Your task to perform on an android device: Search for Mexican restaurants on Maps Image 0: 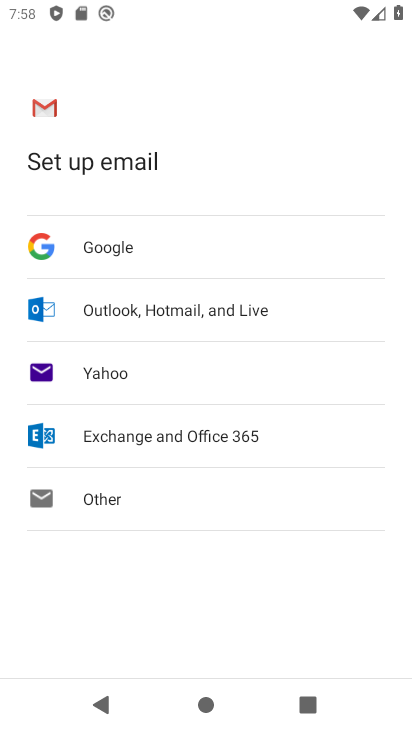
Step 0: press home button
Your task to perform on an android device: Search for Mexican restaurants on Maps Image 1: 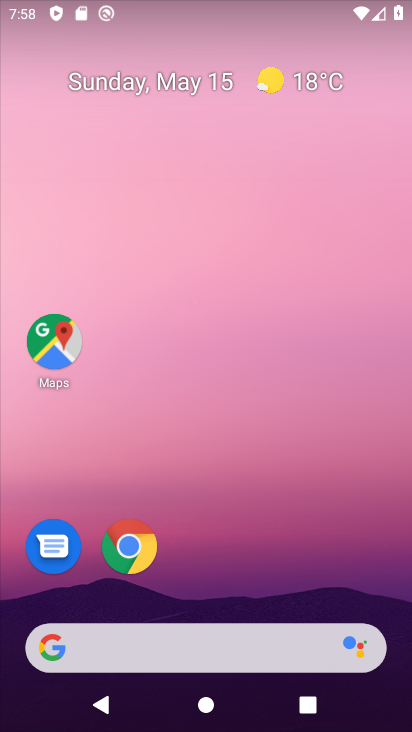
Step 1: click (83, 342)
Your task to perform on an android device: Search for Mexican restaurants on Maps Image 2: 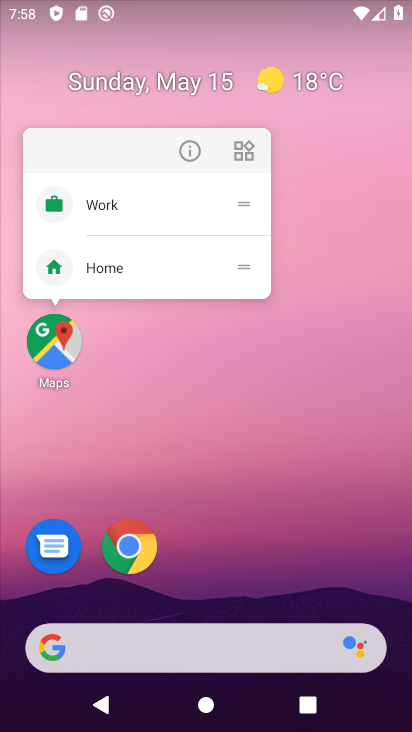
Step 2: click (67, 336)
Your task to perform on an android device: Search for Mexican restaurants on Maps Image 3: 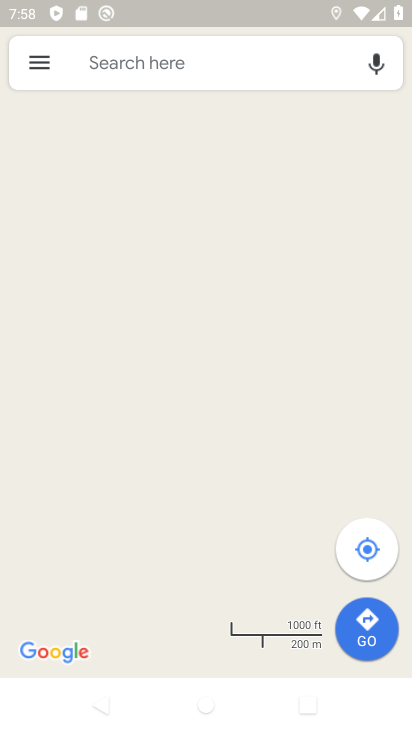
Step 3: click (178, 58)
Your task to perform on an android device: Search for Mexican restaurants on Maps Image 4: 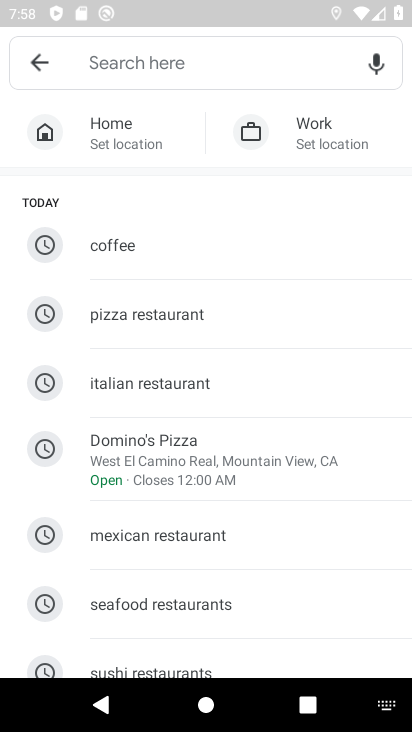
Step 4: type "Mexican restaurants"
Your task to perform on an android device: Search for Mexican restaurants on Maps Image 5: 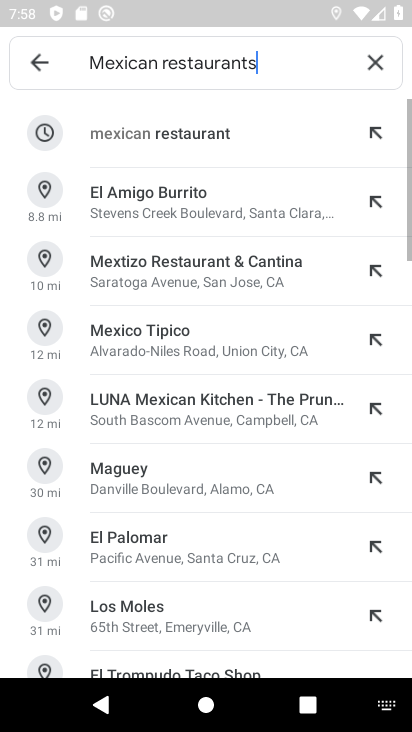
Step 5: click (201, 147)
Your task to perform on an android device: Search for Mexican restaurants on Maps Image 6: 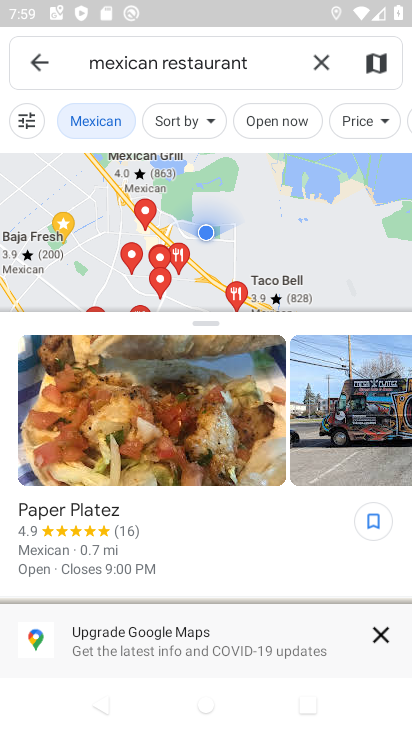
Step 6: task complete